Your task to perform on an android device: Go to Google Image 0: 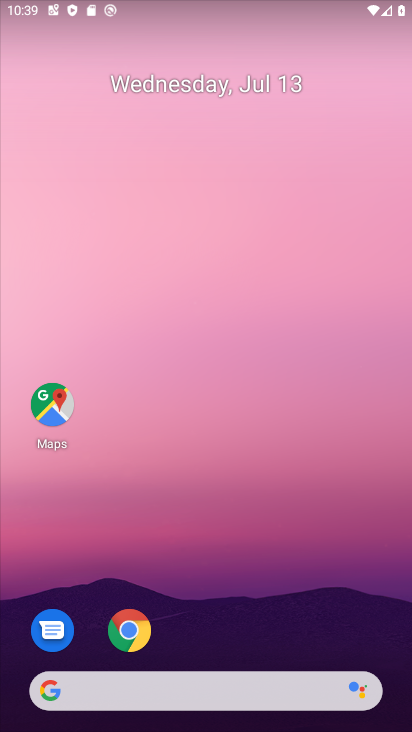
Step 0: drag from (277, 589) to (136, 15)
Your task to perform on an android device: Go to Google Image 1: 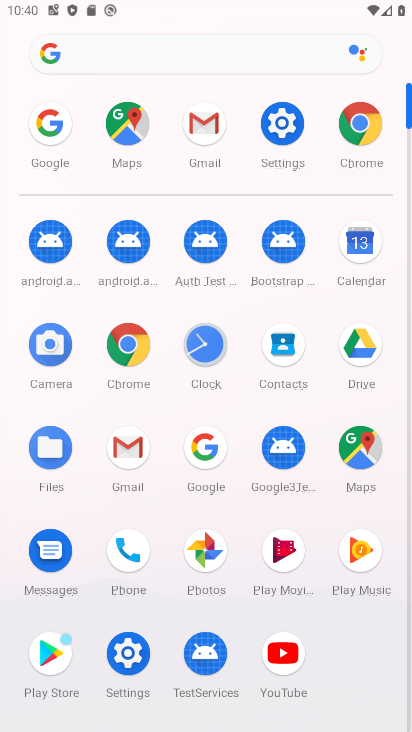
Step 1: click (200, 444)
Your task to perform on an android device: Go to Google Image 2: 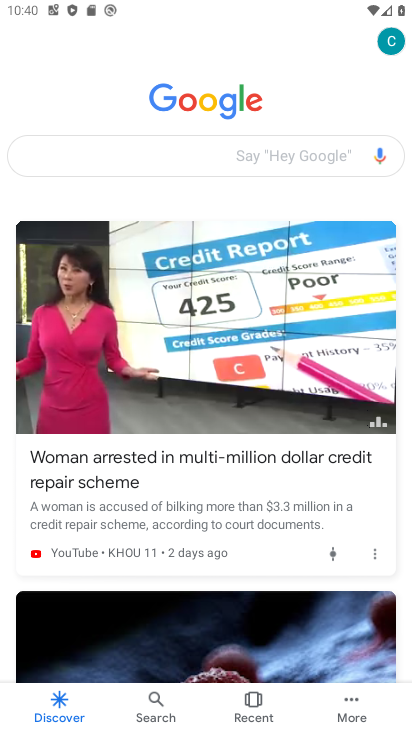
Step 2: task complete